Your task to perform on an android device: turn on priority inbox in the gmail app Image 0: 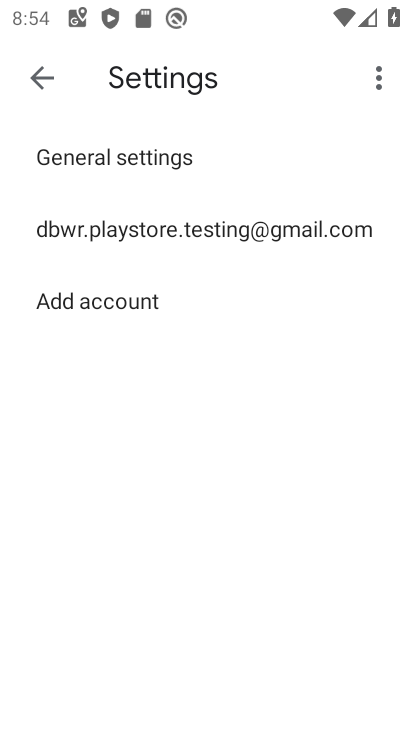
Step 0: press home button
Your task to perform on an android device: turn on priority inbox in the gmail app Image 1: 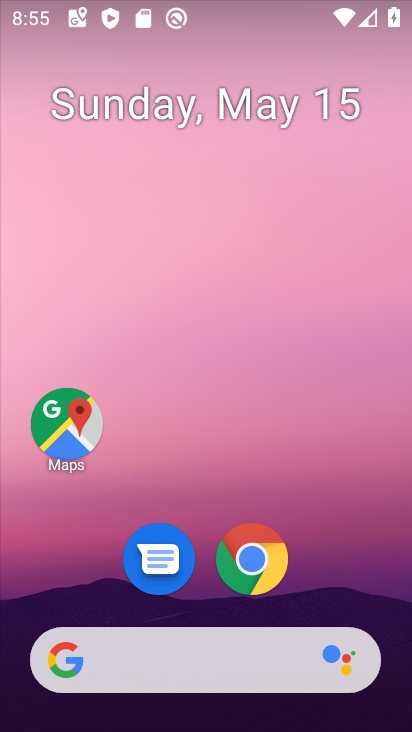
Step 1: drag from (346, 389) to (326, 120)
Your task to perform on an android device: turn on priority inbox in the gmail app Image 2: 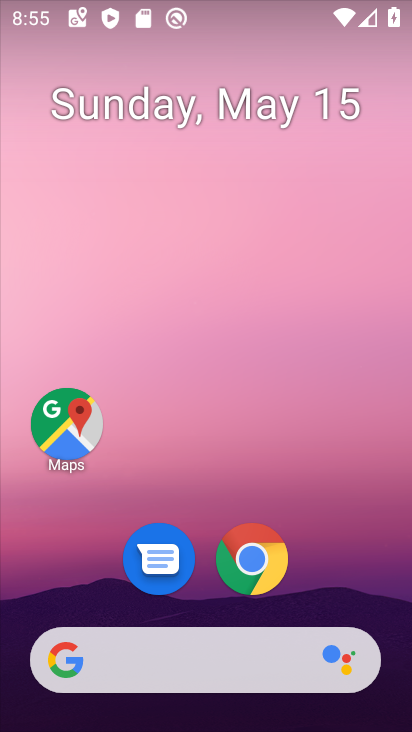
Step 2: drag from (342, 583) to (289, 47)
Your task to perform on an android device: turn on priority inbox in the gmail app Image 3: 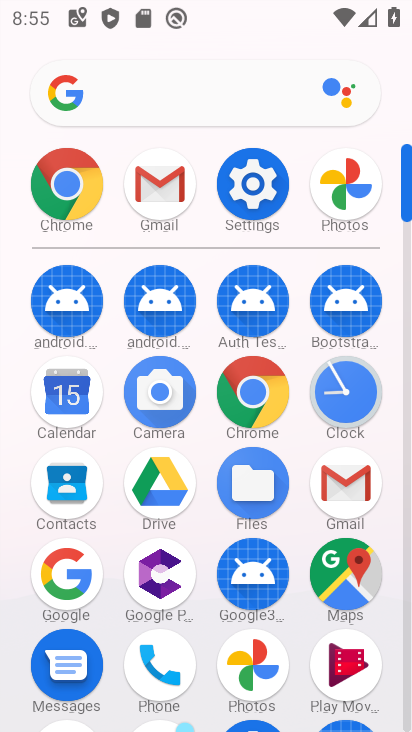
Step 3: click (162, 175)
Your task to perform on an android device: turn on priority inbox in the gmail app Image 4: 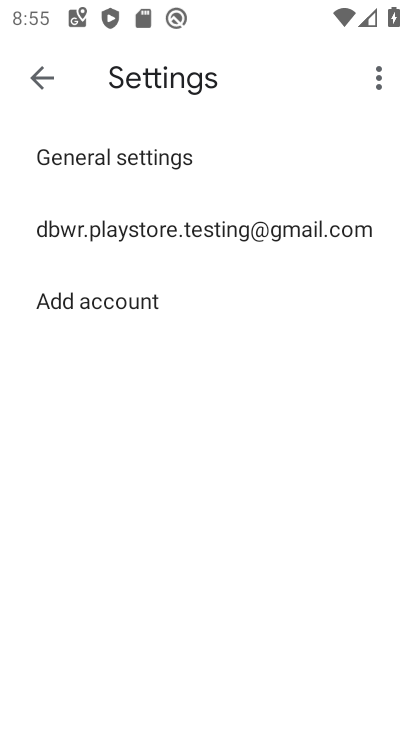
Step 4: click (166, 252)
Your task to perform on an android device: turn on priority inbox in the gmail app Image 5: 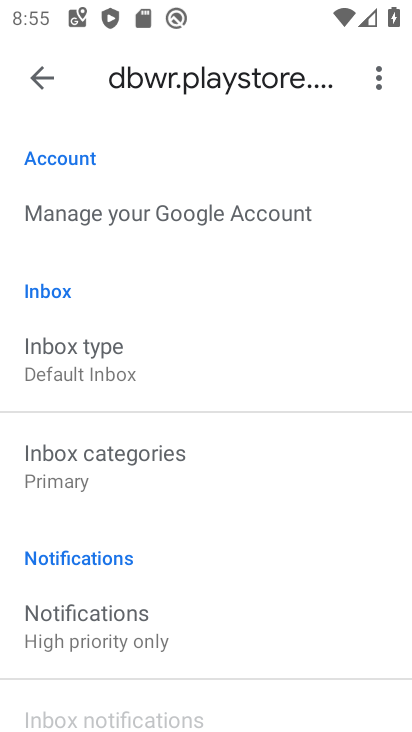
Step 5: click (188, 388)
Your task to perform on an android device: turn on priority inbox in the gmail app Image 6: 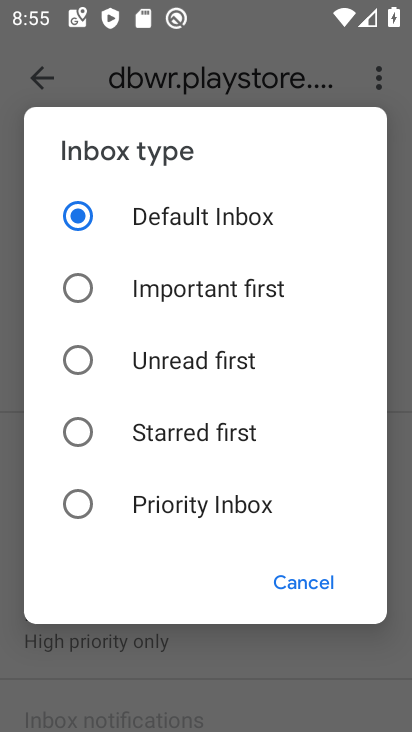
Step 6: click (197, 490)
Your task to perform on an android device: turn on priority inbox in the gmail app Image 7: 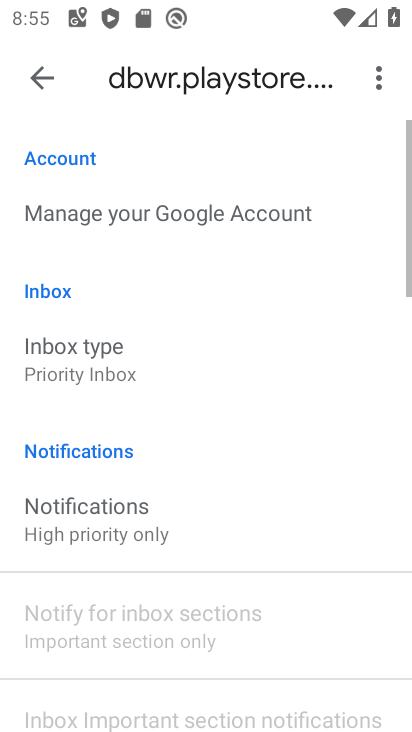
Step 7: task complete